Your task to perform on an android device: show emergency info Image 0: 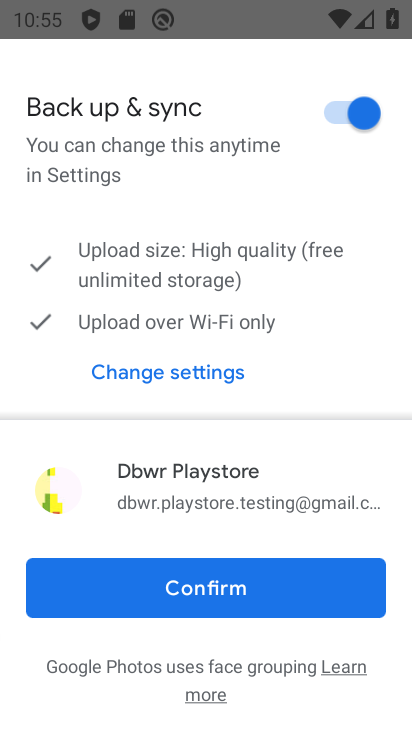
Step 0: press home button
Your task to perform on an android device: show emergency info Image 1: 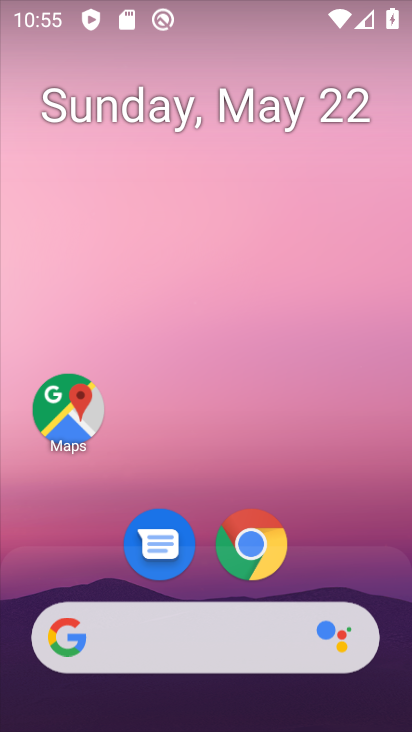
Step 1: drag from (330, 509) to (257, 74)
Your task to perform on an android device: show emergency info Image 2: 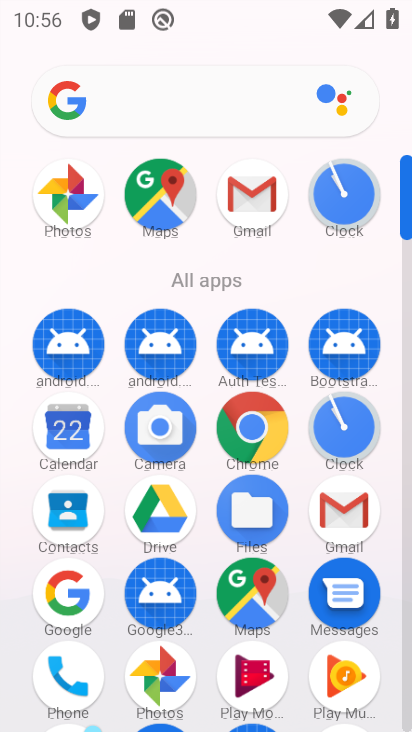
Step 2: drag from (401, 524) to (378, 157)
Your task to perform on an android device: show emergency info Image 3: 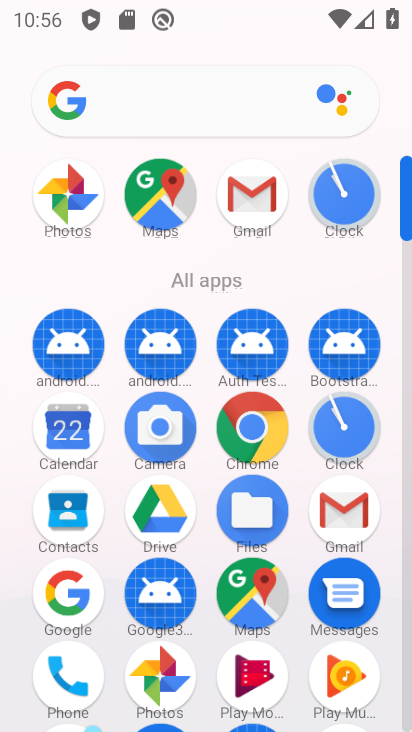
Step 3: drag from (400, 642) to (366, 323)
Your task to perform on an android device: show emergency info Image 4: 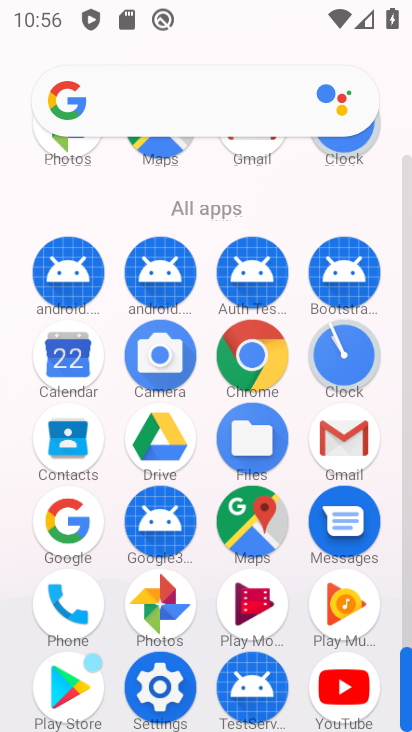
Step 4: click (167, 697)
Your task to perform on an android device: show emergency info Image 5: 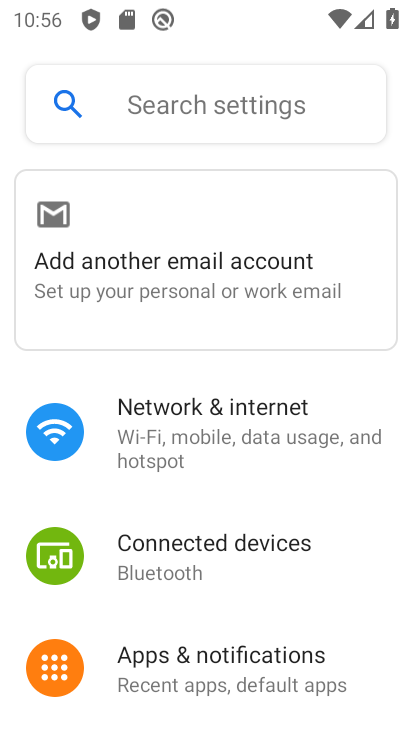
Step 5: drag from (267, 584) to (225, 177)
Your task to perform on an android device: show emergency info Image 6: 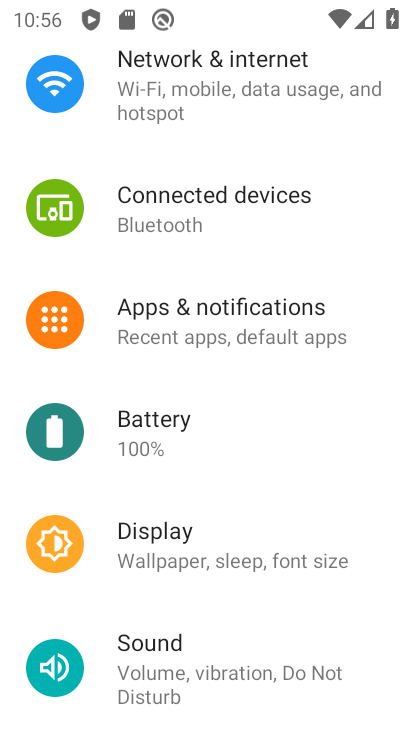
Step 6: drag from (208, 580) to (238, 108)
Your task to perform on an android device: show emergency info Image 7: 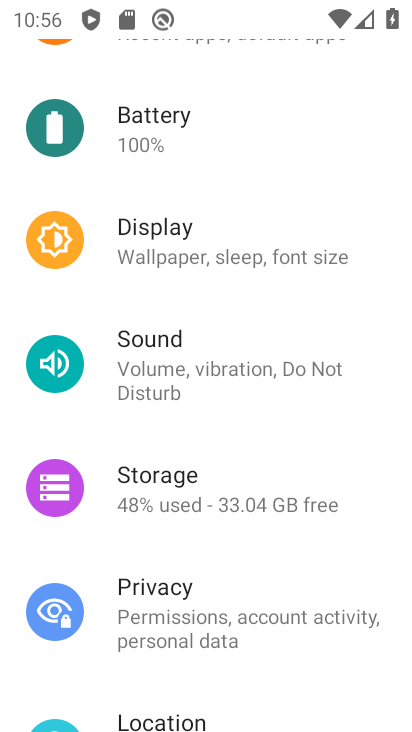
Step 7: drag from (219, 606) to (271, 133)
Your task to perform on an android device: show emergency info Image 8: 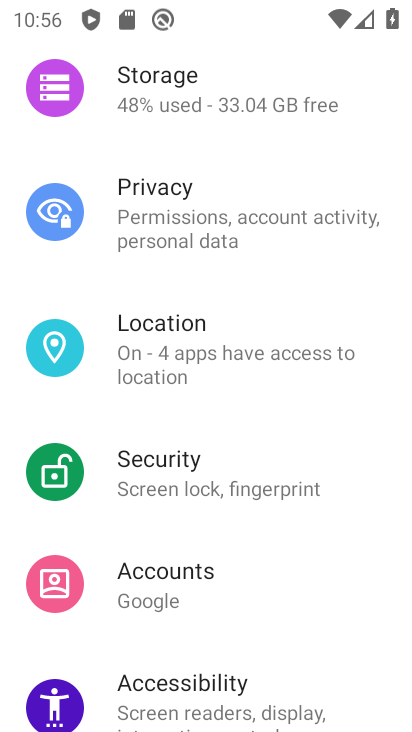
Step 8: drag from (207, 517) to (250, 52)
Your task to perform on an android device: show emergency info Image 9: 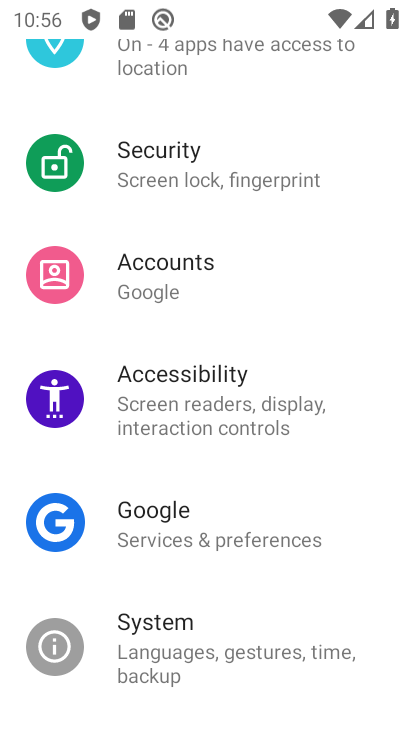
Step 9: drag from (249, 628) to (310, 212)
Your task to perform on an android device: show emergency info Image 10: 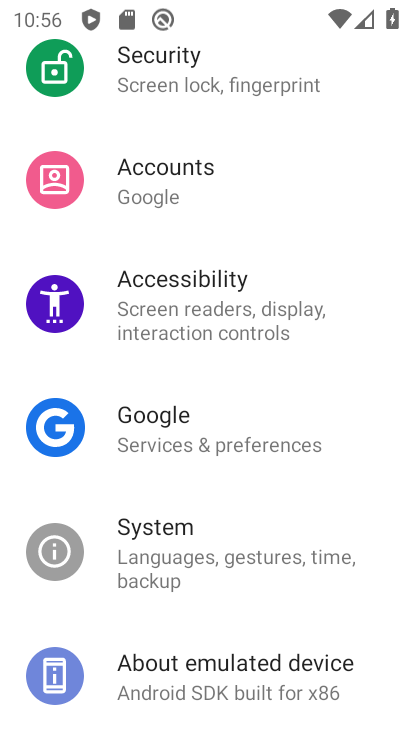
Step 10: click (232, 666)
Your task to perform on an android device: show emergency info Image 11: 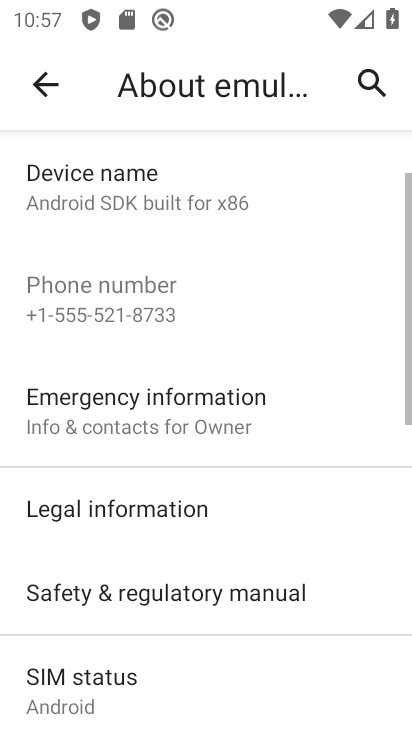
Step 11: click (168, 414)
Your task to perform on an android device: show emergency info Image 12: 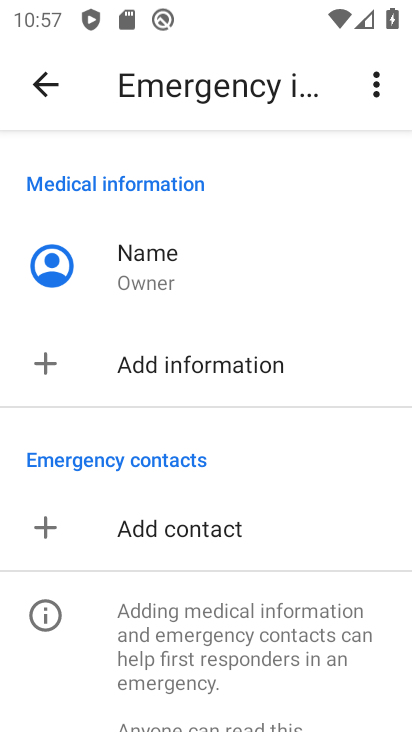
Step 12: task complete